Your task to perform on an android device: turn off data saver in the chrome app Image 0: 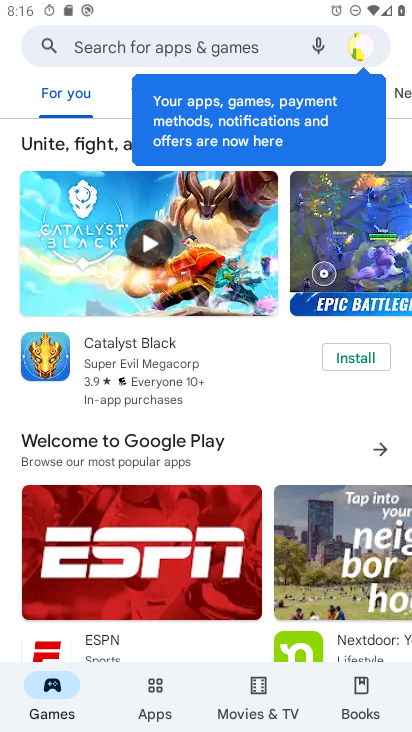
Step 0: press home button
Your task to perform on an android device: turn off data saver in the chrome app Image 1: 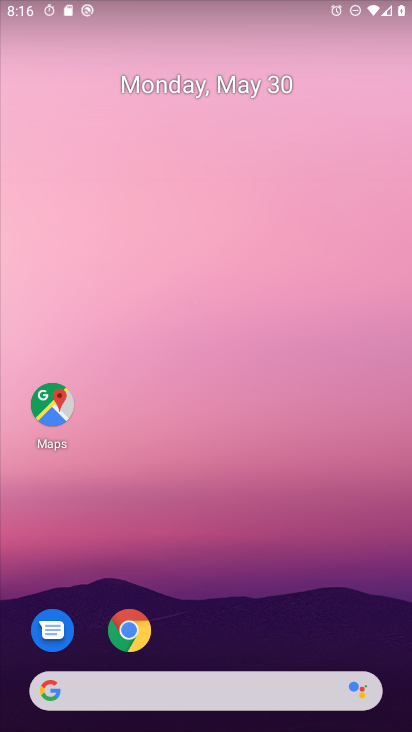
Step 1: drag from (335, 615) to (410, 701)
Your task to perform on an android device: turn off data saver in the chrome app Image 2: 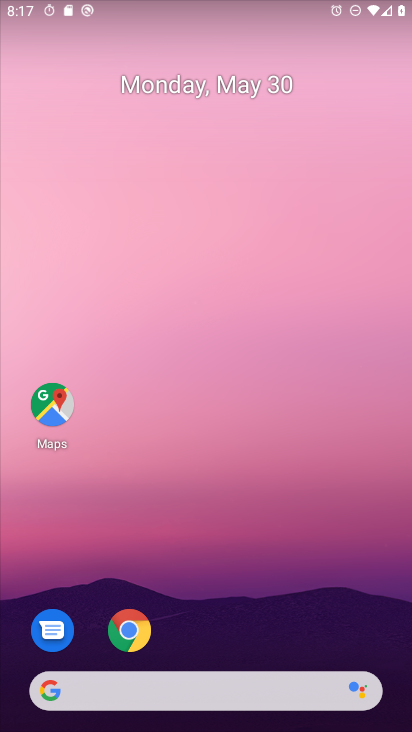
Step 2: drag from (254, 634) to (173, 49)
Your task to perform on an android device: turn off data saver in the chrome app Image 3: 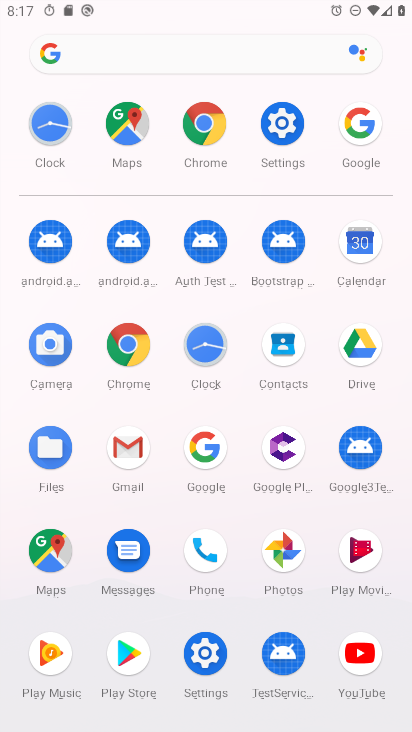
Step 3: click (212, 142)
Your task to perform on an android device: turn off data saver in the chrome app Image 4: 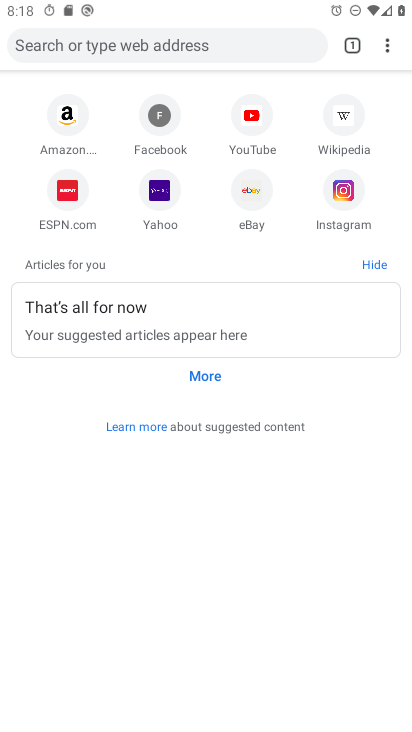
Step 4: click (387, 46)
Your task to perform on an android device: turn off data saver in the chrome app Image 5: 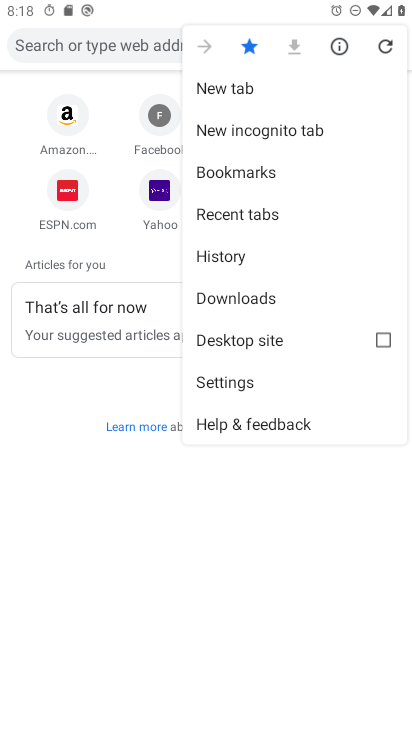
Step 5: click (296, 388)
Your task to perform on an android device: turn off data saver in the chrome app Image 6: 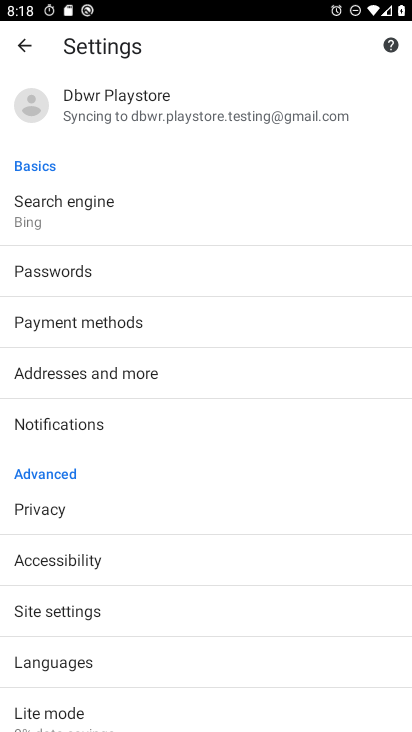
Step 6: click (99, 703)
Your task to perform on an android device: turn off data saver in the chrome app Image 7: 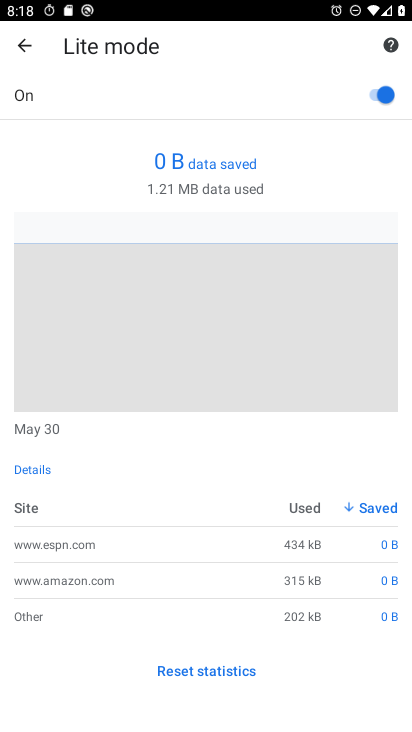
Step 7: click (373, 93)
Your task to perform on an android device: turn off data saver in the chrome app Image 8: 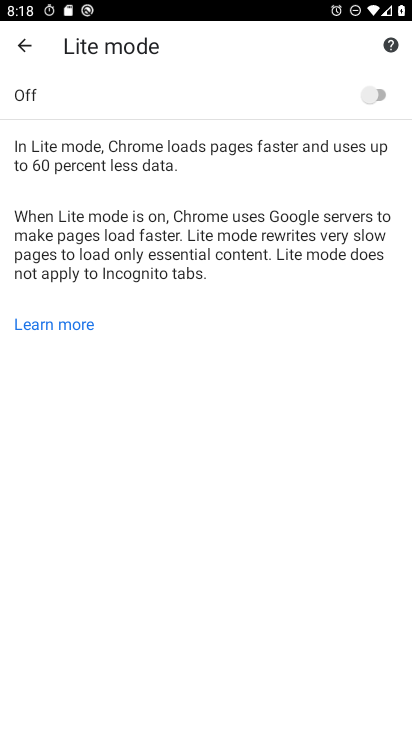
Step 8: task complete